Your task to perform on an android device: change alarm snooze length Image 0: 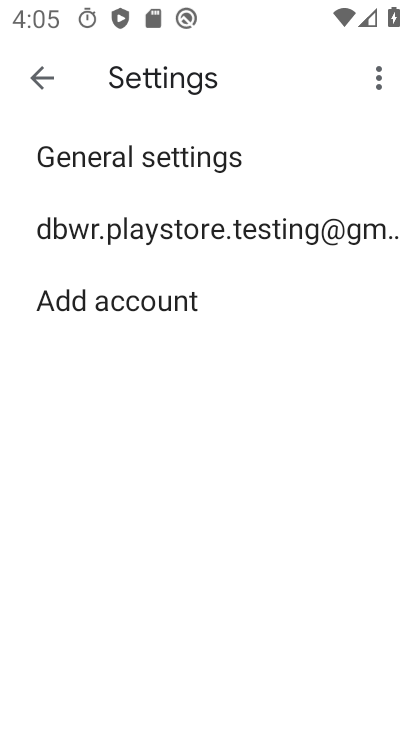
Step 0: press home button
Your task to perform on an android device: change alarm snooze length Image 1: 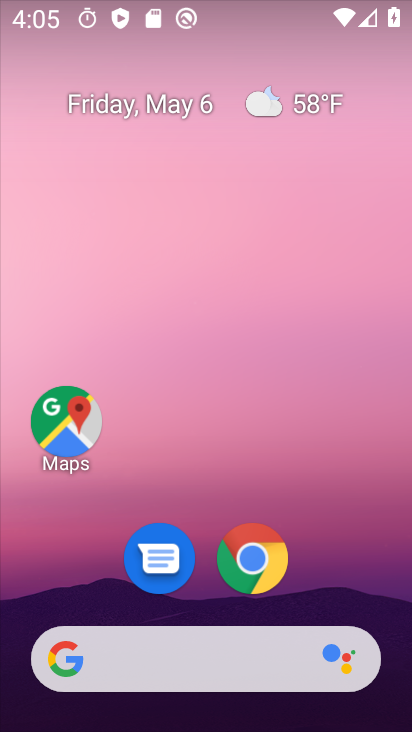
Step 1: drag from (304, 599) to (278, 62)
Your task to perform on an android device: change alarm snooze length Image 2: 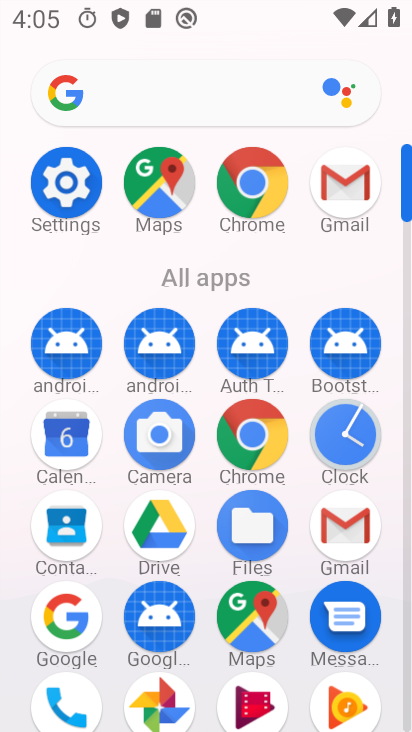
Step 2: click (355, 423)
Your task to perform on an android device: change alarm snooze length Image 3: 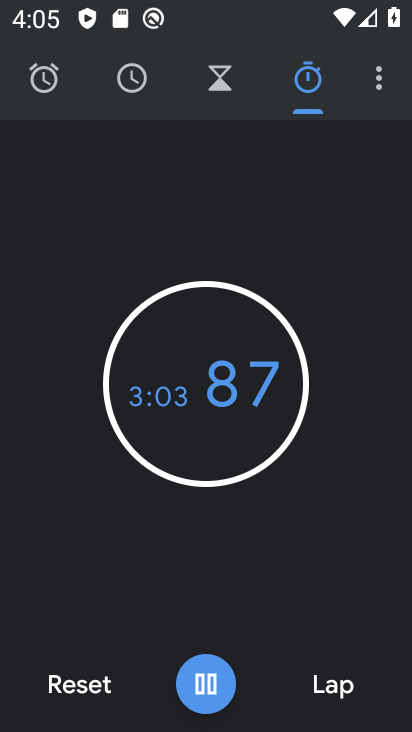
Step 3: click (368, 77)
Your task to perform on an android device: change alarm snooze length Image 4: 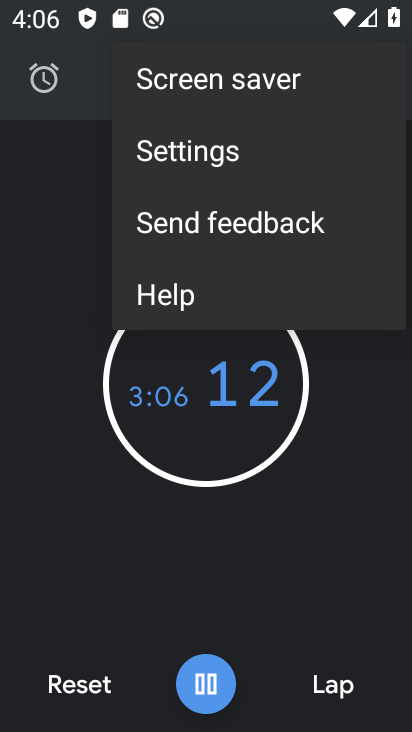
Step 4: click (234, 151)
Your task to perform on an android device: change alarm snooze length Image 5: 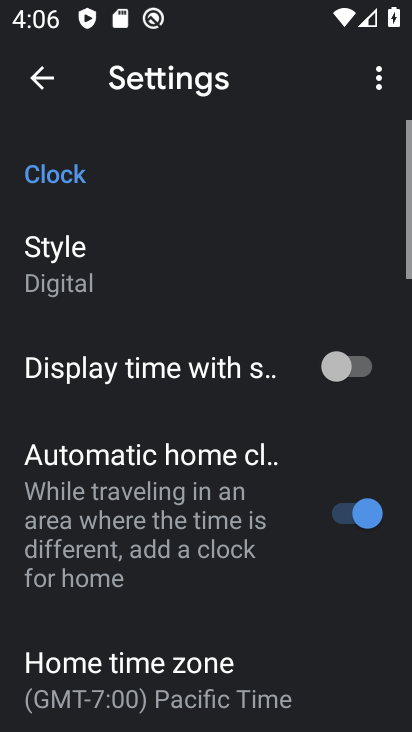
Step 5: drag from (232, 665) to (227, 190)
Your task to perform on an android device: change alarm snooze length Image 6: 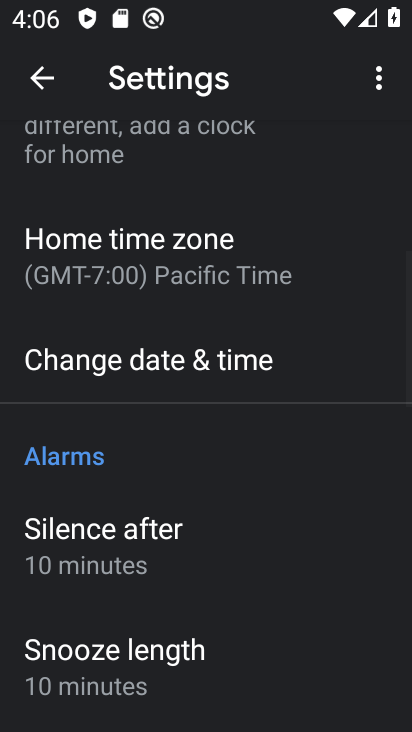
Step 6: drag from (249, 626) to (226, 377)
Your task to perform on an android device: change alarm snooze length Image 7: 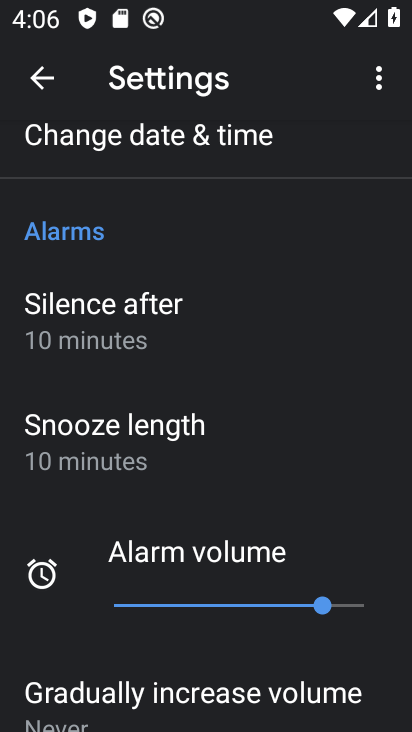
Step 7: click (203, 445)
Your task to perform on an android device: change alarm snooze length Image 8: 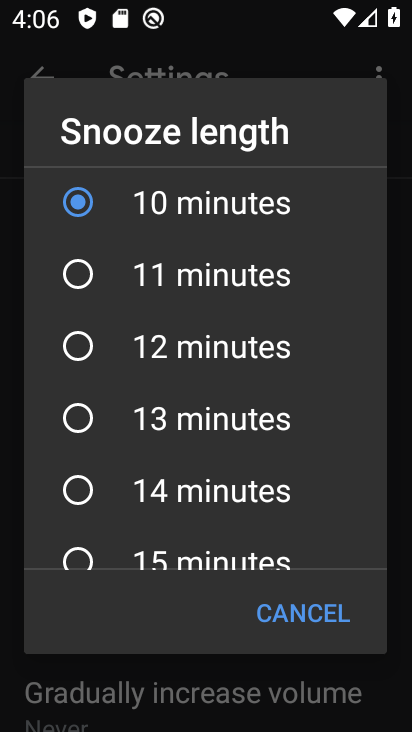
Step 8: click (225, 275)
Your task to perform on an android device: change alarm snooze length Image 9: 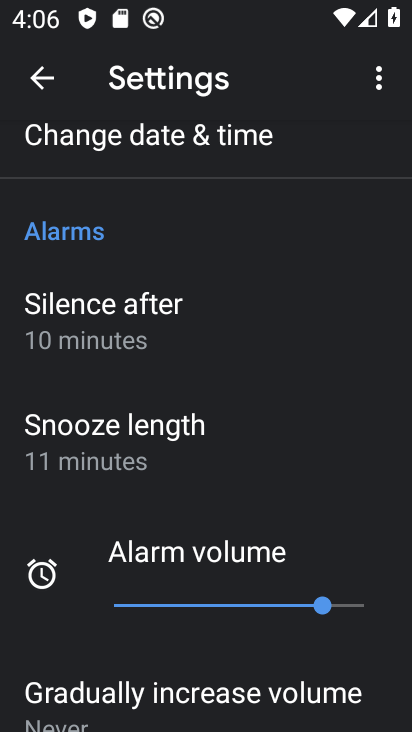
Step 9: task complete